Your task to perform on an android device: open chrome privacy settings Image 0: 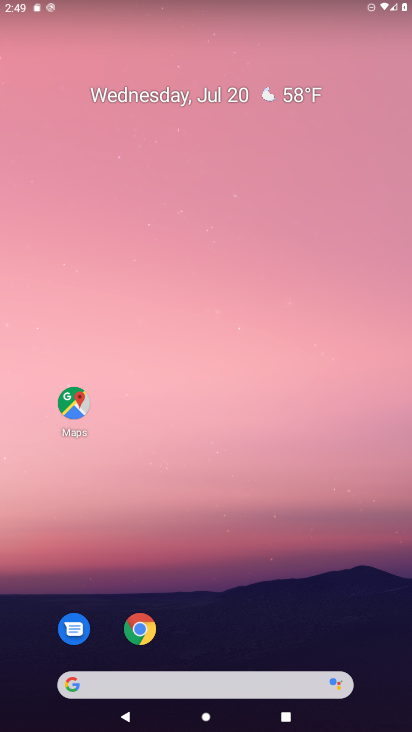
Step 0: press home button
Your task to perform on an android device: open chrome privacy settings Image 1: 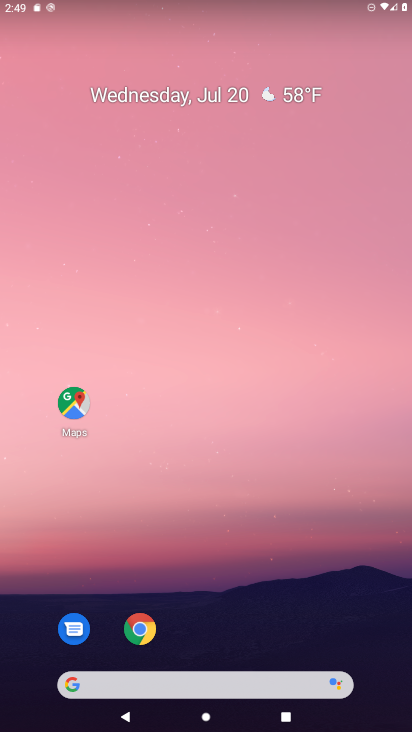
Step 1: click (127, 646)
Your task to perform on an android device: open chrome privacy settings Image 2: 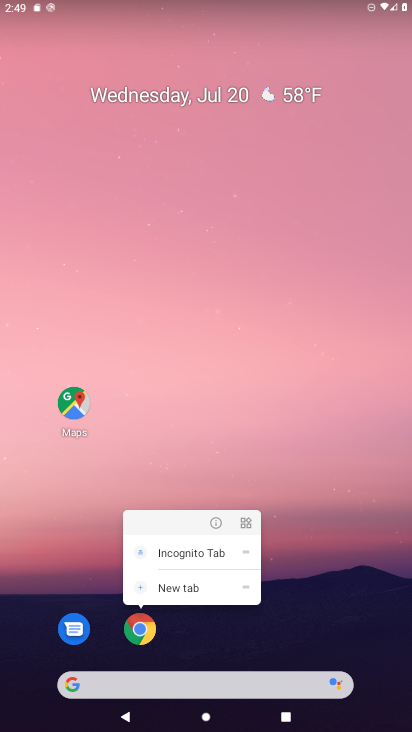
Step 2: click (133, 635)
Your task to perform on an android device: open chrome privacy settings Image 3: 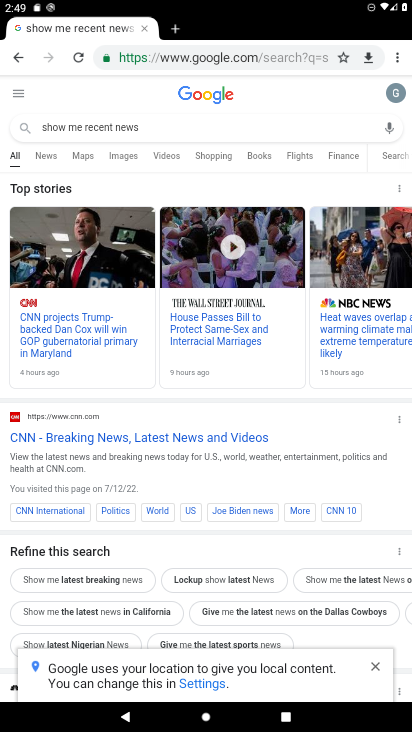
Step 3: drag from (395, 53) to (281, 357)
Your task to perform on an android device: open chrome privacy settings Image 4: 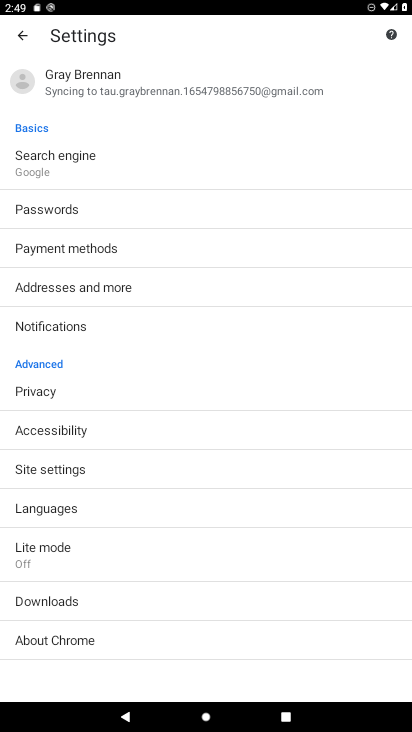
Step 4: click (34, 384)
Your task to perform on an android device: open chrome privacy settings Image 5: 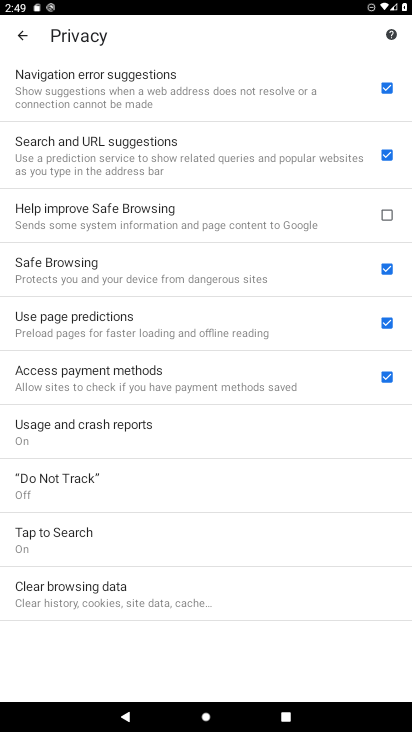
Step 5: task complete